Your task to perform on an android device: turn on improve location accuracy Image 0: 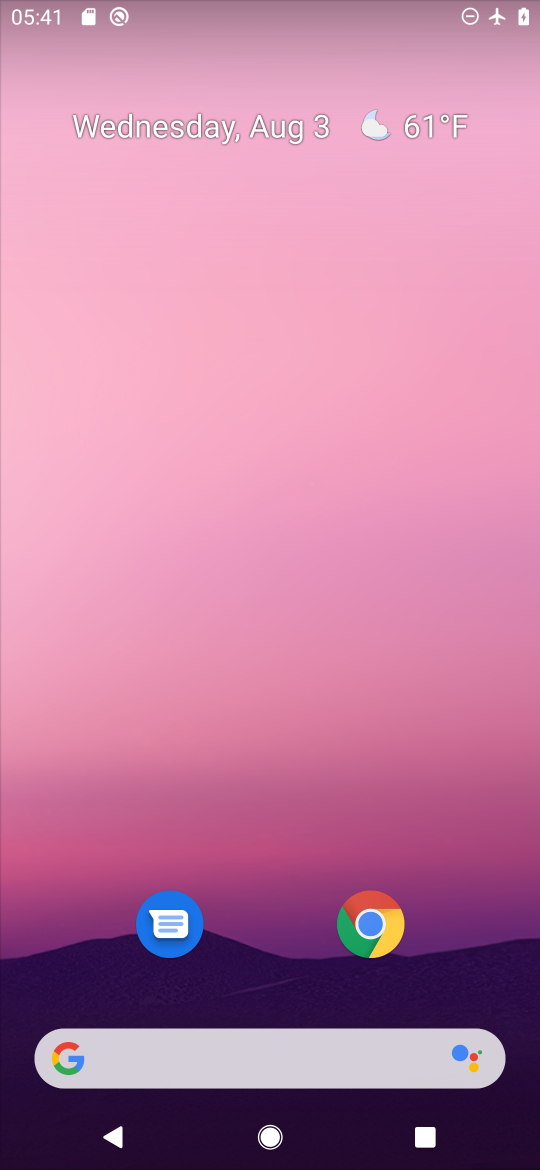
Step 0: drag from (293, 928) to (289, 245)
Your task to perform on an android device: turn on improve location accuracy Image 1: 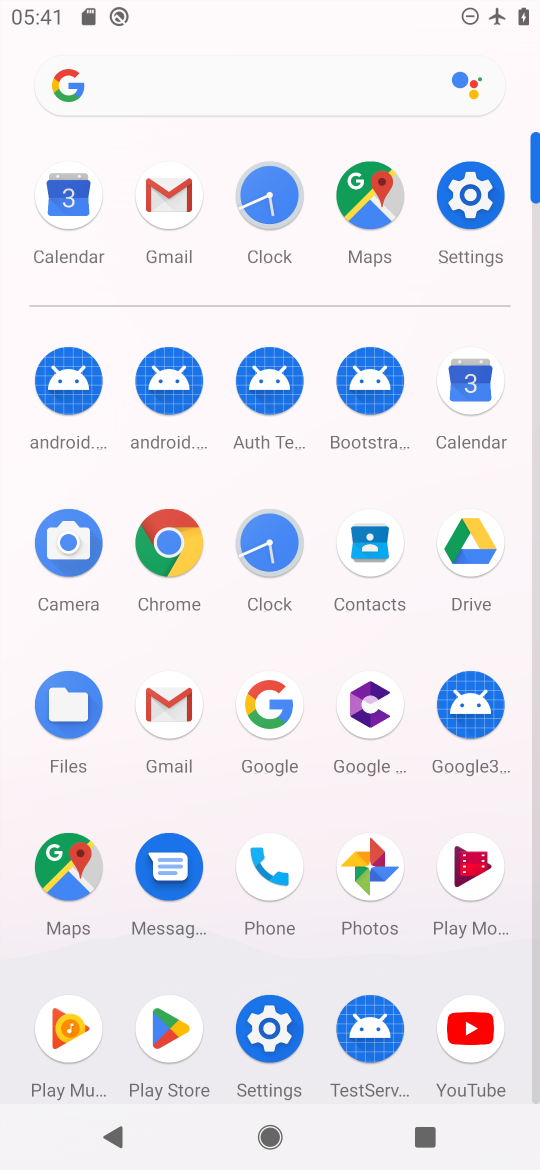
Step 1: click (454, 203)
Your task to perform on an android device: turn on improve location accuracy Image 2: 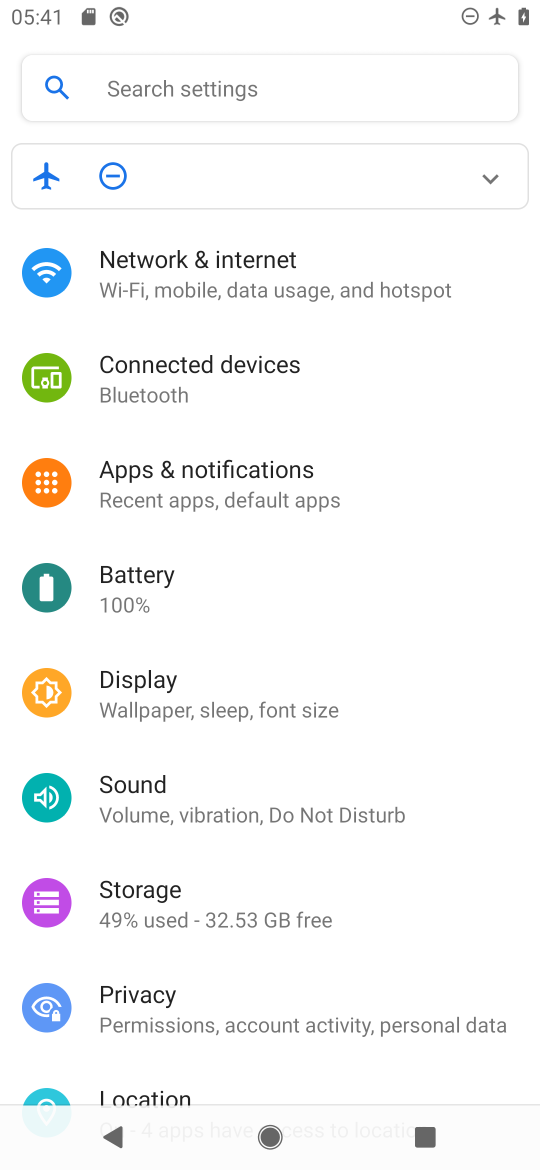
Step 2: drag from (278, 905) to (295, 400)
Your task to perform on an android device: turn on improve location accuracy Image 3: 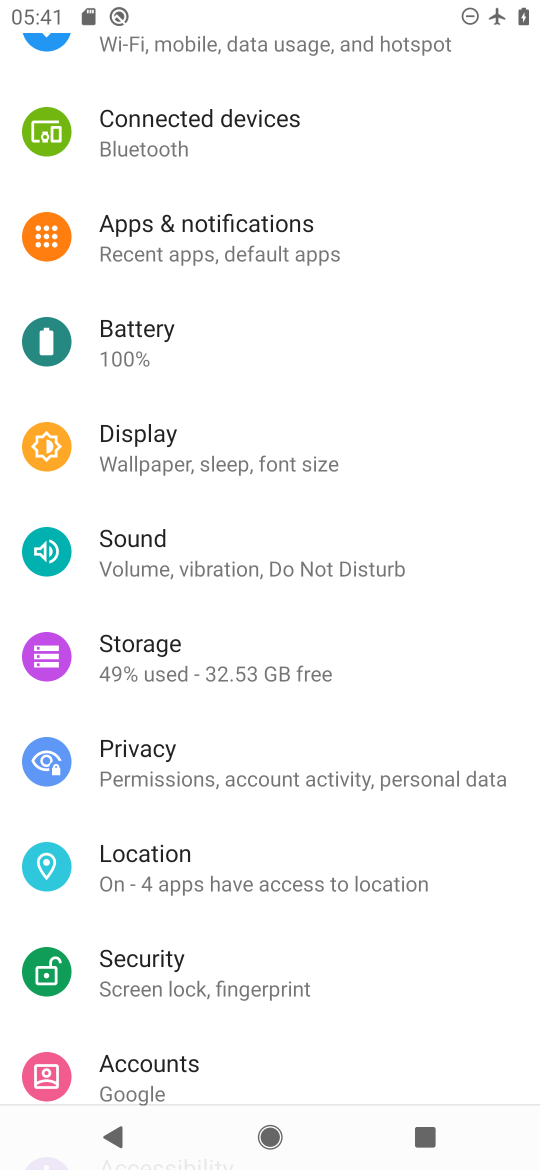
Step 3: click (166, 854)
Your task to perform on an android device: turn on improve location accuracy Image 4: 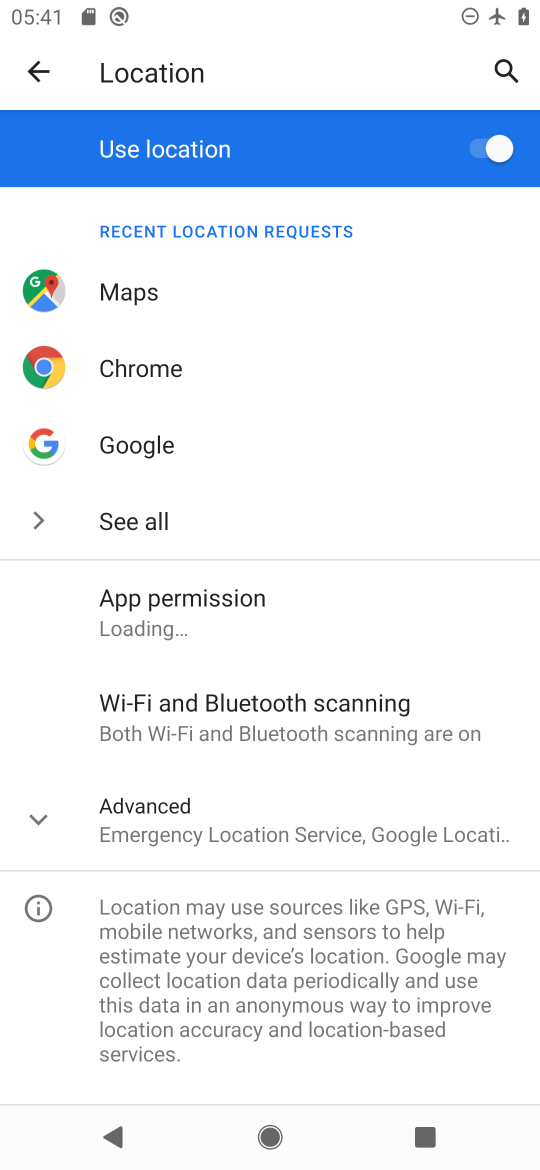
Step 4: click (205, 814)
Your task to perform on an android device: turn on improve location accuracy Image 5: 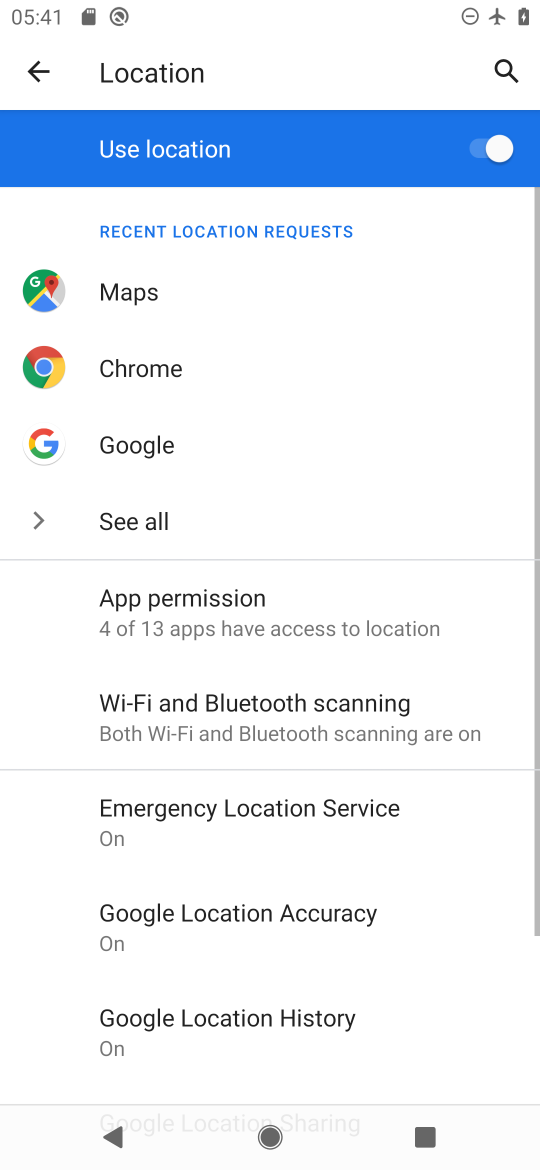
Step 5: click (306, 927)
Your task to perform on an android device: turn on improve location accuracy Image 6: 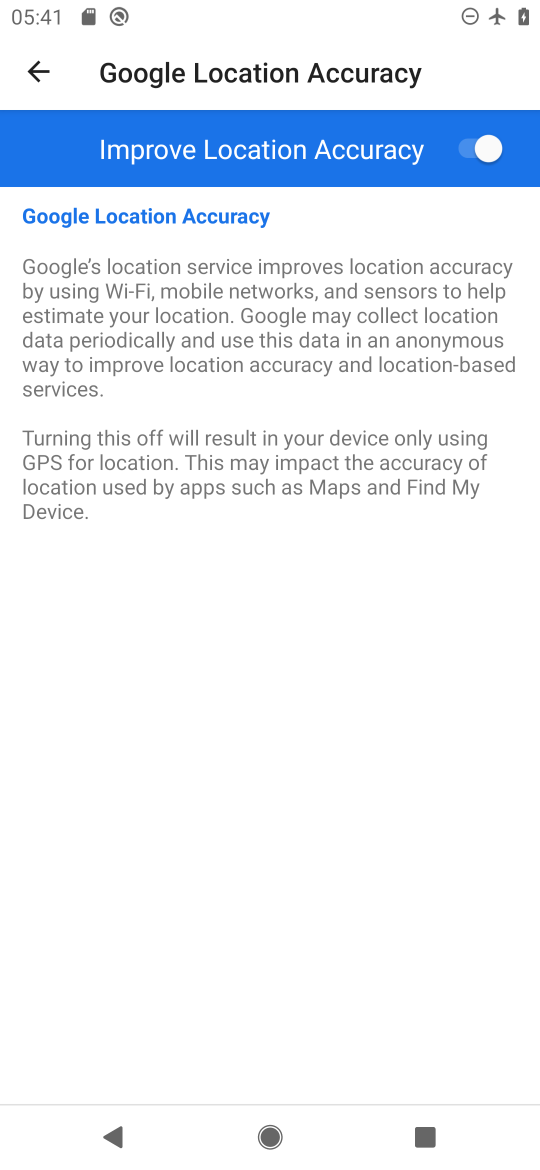
Step 6: task complete